Your task to perform on an android device: turn off translation in the chrome app Image 0: 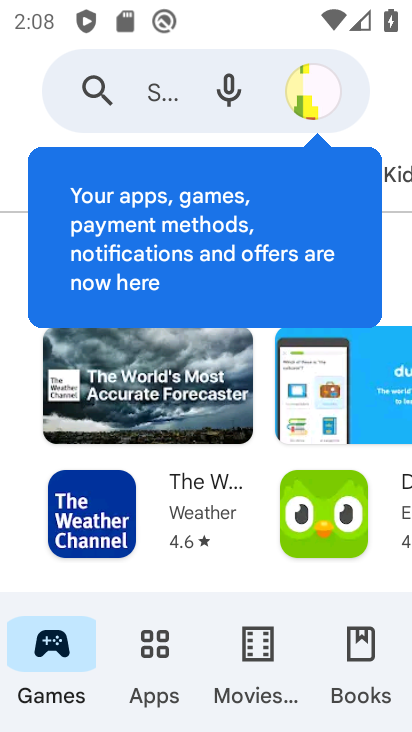
Step 0: press home button
Your task to perform on an android device: turn off translation in the chrome app Image 1: 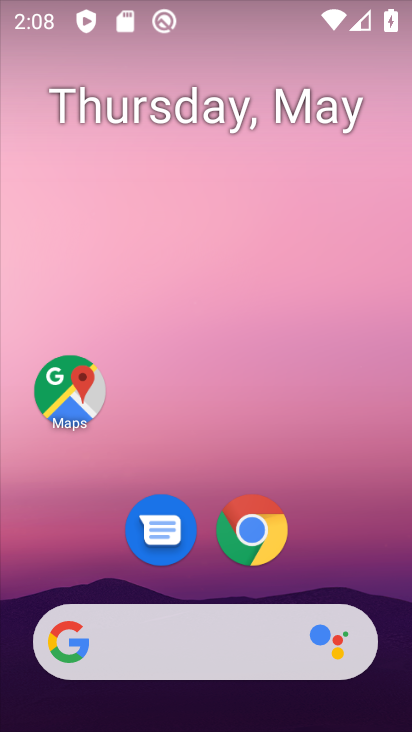
Step 1: click (255, 531)
Your task to perform on an android device: turn off translation in the chrome app Image 2: 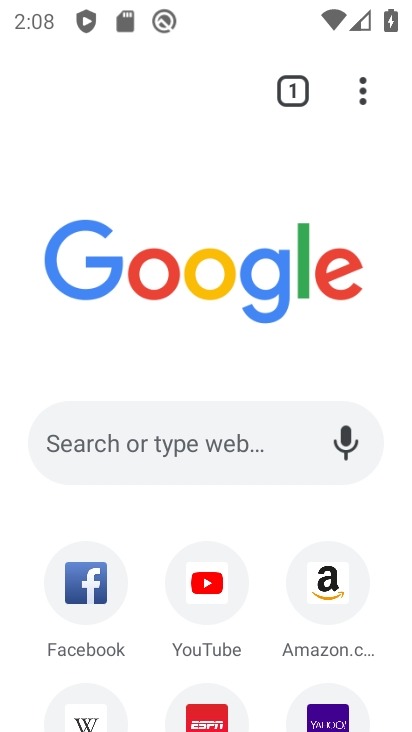
Step 2: drag from (364, 99) to (206, 564)
Your task to perform on an android device: turn off translation in the chrome app Image 3: 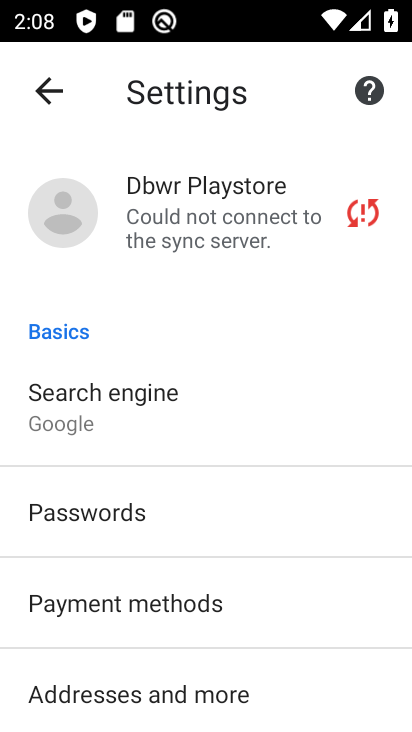
Step 3: drag from (190, 628) to (342, 126)
Your task to perform on an android device: turn off translation in the chrome app Image 4: 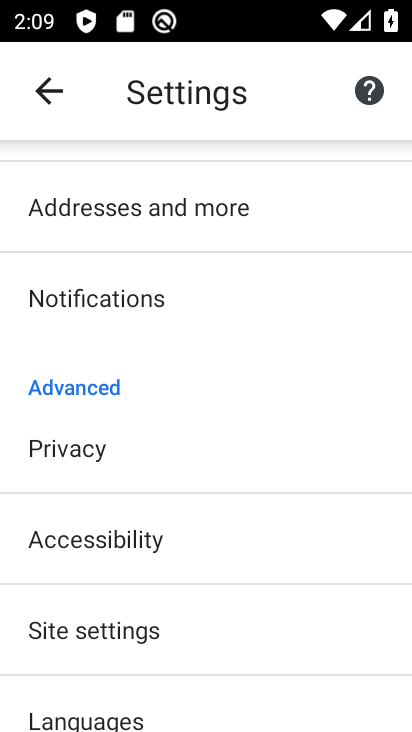
Step 4: drag from (210, 631) to (286, 323)
Your task to perform on an android device: turn off translation in the chrome app Image 5: 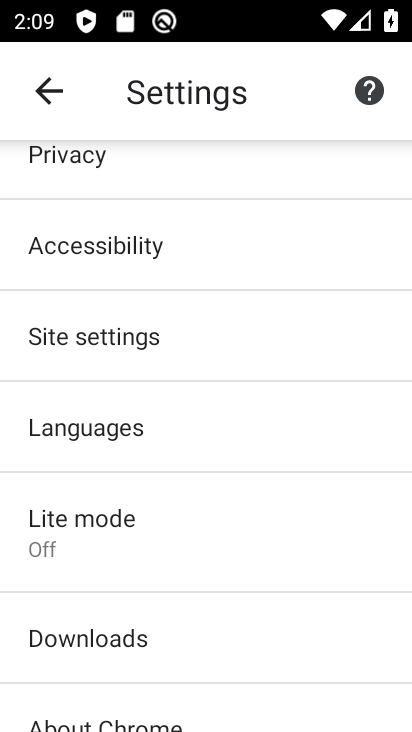
Step 5: click (130, 431)
Your task to perform on an android device: turn off translation in the chrome app Image 6: 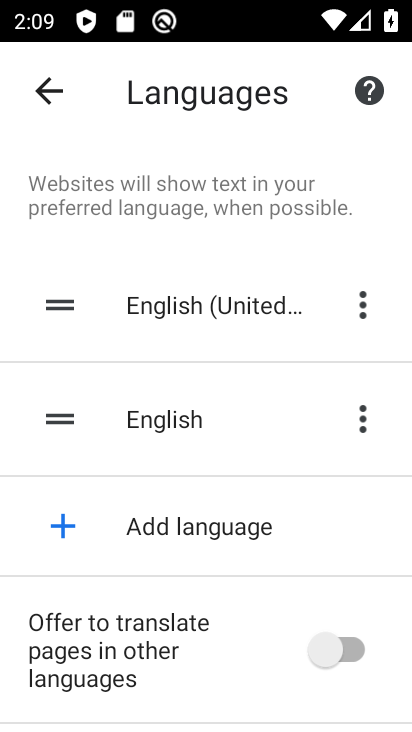
Step 6: task complete